Your task to perform on an android device: check google app version Image 0: 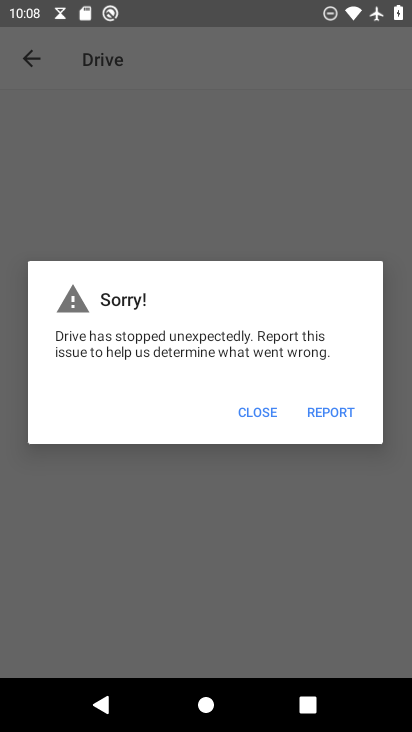
Step 0: press home button
Your task to perform on an android device: check google app version Image 1: 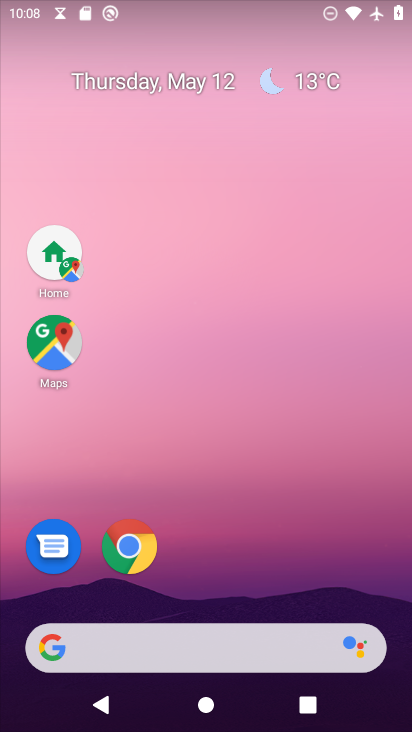
Step 1: drag from (128, 640) to (283, 213)
Your task to perform on an android device: check google app version Image 2: 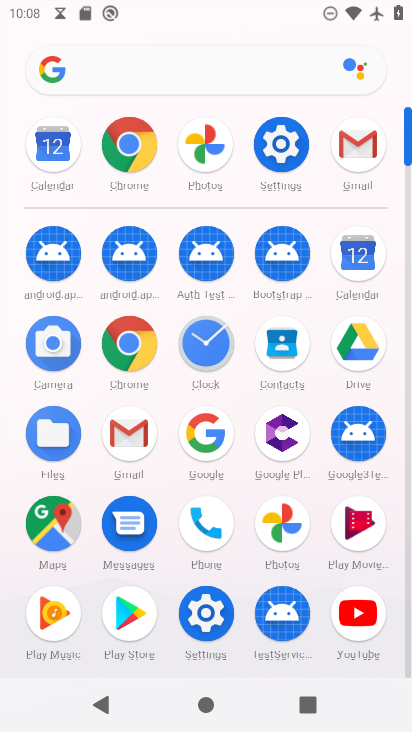
Step 2: click (213, 426)
Your task to perform on an android device: check google app version Image 3: 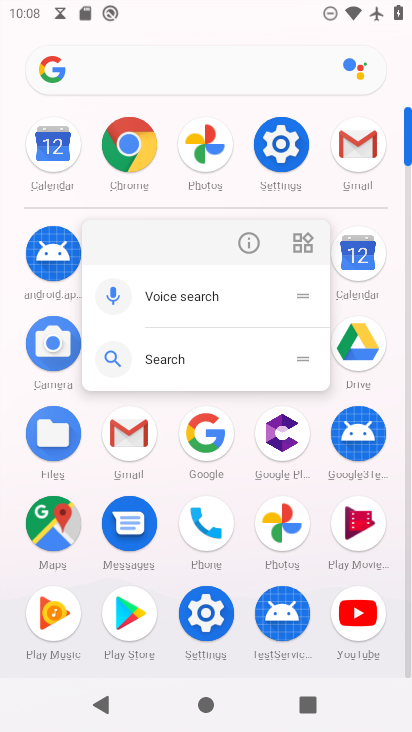
Step 3: click (250, 242)
Your task to perform on an android device: check google app version Image 4: 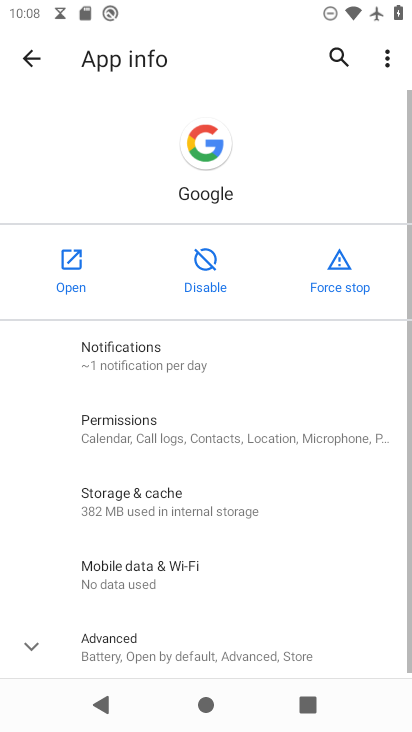
Step 4: drag from (202, 624) to (358, 46)
Your task to perform on an android device: check google app version Image 5: 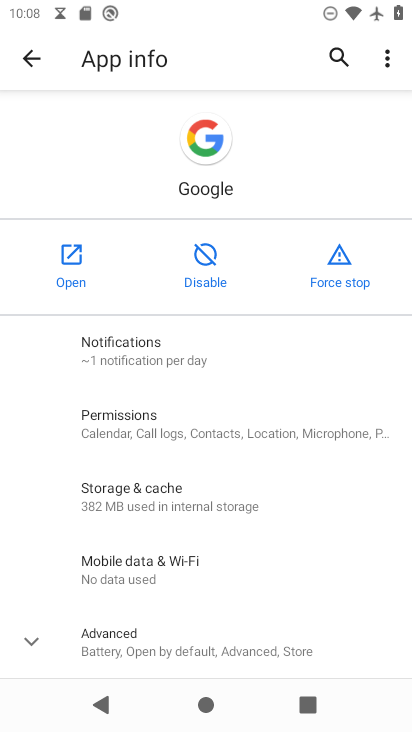
Step 5: click (84, 635)
Your task to perform on an android device: check google app version Image 6: 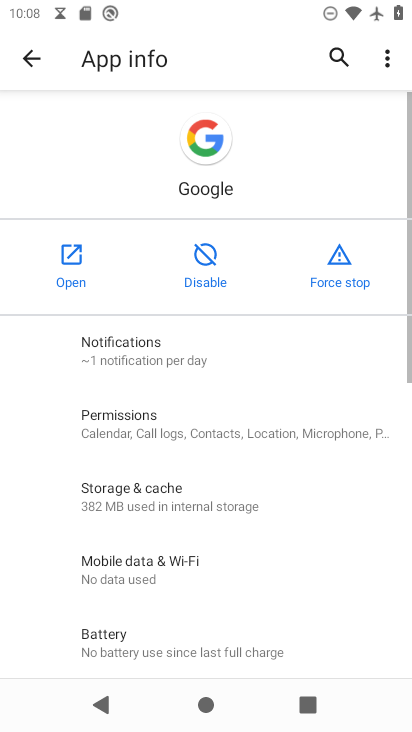
Step 6: task complete